Your task to perform on an android device: open the mobile data screen to see how much data has been used Image 0: 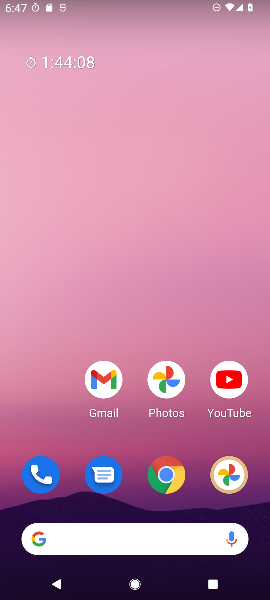
Step 0: press home button
Your task to perform on an android device: open the mobile data screen to see how much data has been used Image 1: 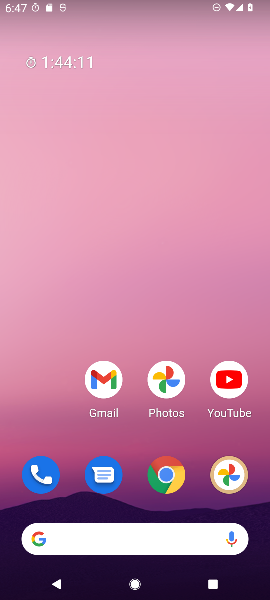
Step 1: drag from (59, 440) to (63, 154)
Your task to perform on an android device: open the mobile data screen to see how much data has been used Image 2: 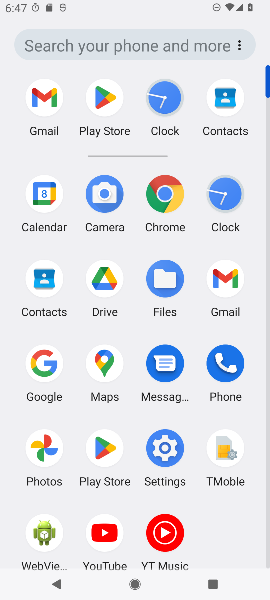
Step 2: click (166, 457)
Your task to perform on an android device: open the mobile data screen to see how much data has been used Image 3: 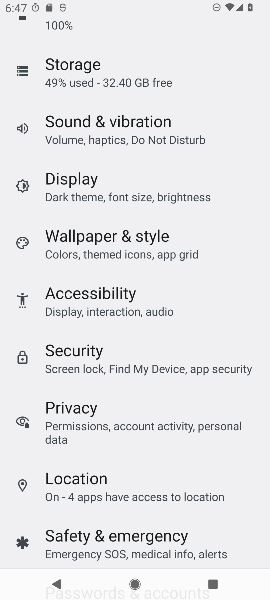
Step 3: drag from (238, 295) to (237, 327)
Your task to perform on an android device: open the mobile data screen to see how much data has been used Image 4: 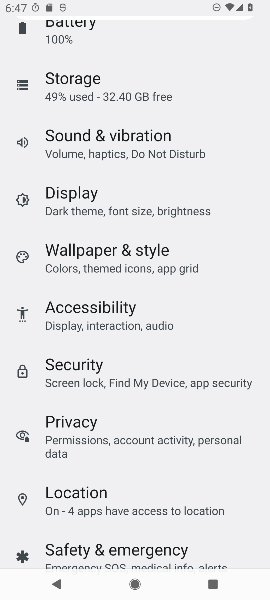
Step 4: drag from (238, 266) to (239, 309)
Your task to perform on an android device: open the mobile data screen to see how much data has been used Image 5: 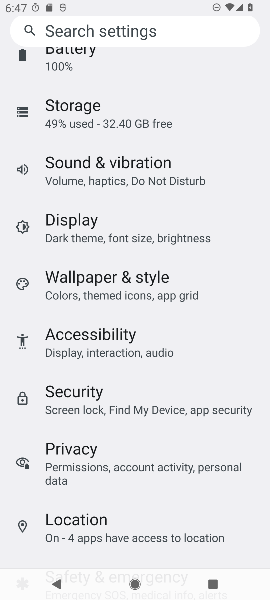
Step 5: drag from (252, 241) to (252, 301)
Your task to perform on an android device: open the mobile data screen to see how much data has been used Image 6: 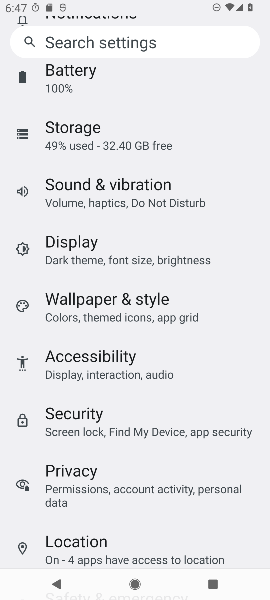
Step 6: drag from (240, 212) to (239, 271)
Your task to perform on an android device: open the mobile data screen to see how much data has been used Image 7: 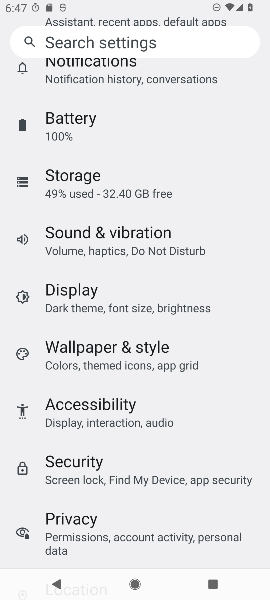
Step 7: drag from (241, 193) to (241, 260)
Your task to perform on an android device: open the mobile data screen to see how much data has been used Image 8: 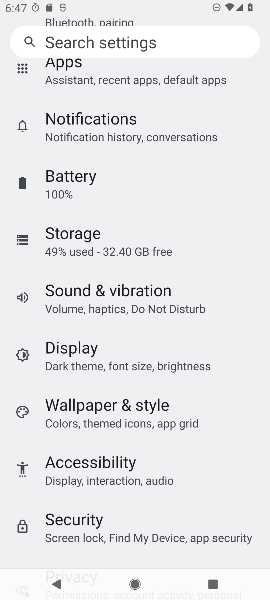
Step 8: drag from (240, 173) to (234, 262)
Your task to perform on an android device: open the mobile data screen to see how much data has been used Image 9: 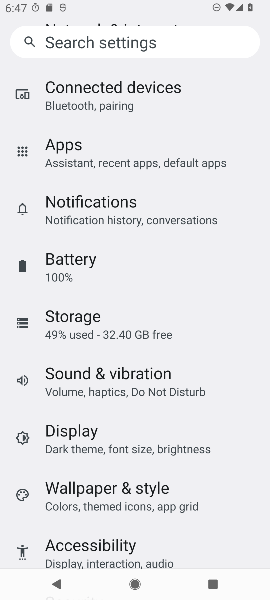
Step 9: drag from (241, 188) to (240, 273)
Your task to perform on an android device: open the mobile data screen to see how much data has been used Image 10: 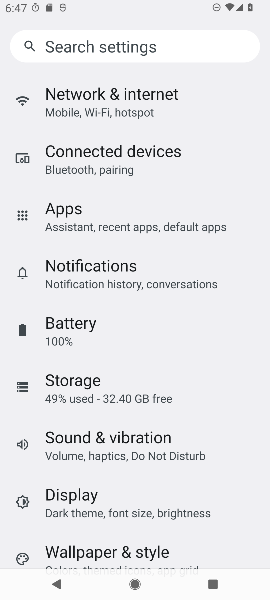
Step 10: drag from (240, 237) to (244, 276)
Your task to perform on an android device: open the mobile data screen to see how much data has been used Image 11: 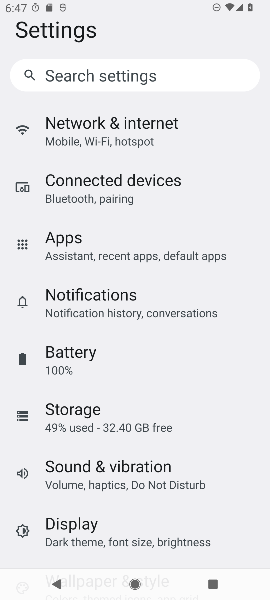
Step 11: drag from (241, 147) to (244, 266)
Your task to perform on an android device: open the mobile data screen to see how much data has been used Image 12: 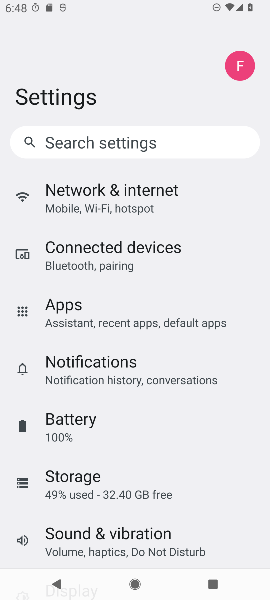
Step 12: click (163, 194)
Your task to perform on an android device: open the mobile data screen to see how much data has been used Image 13: 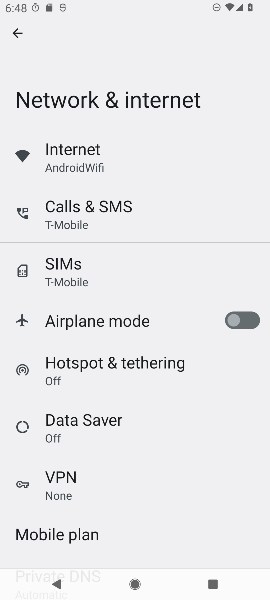
Step 13: click (81, 145)
Your task to perform on an android device: open the mobile data screen to see how much data has been used Image 14: 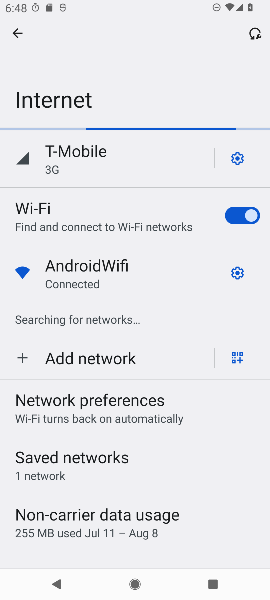
Step 14: click (139, 519)
Your task to perform on an android device: open the mobile data screen to see how much data has been used Image 15: 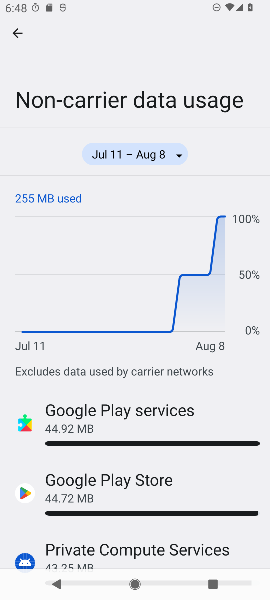
Step 15: task complete